Your task to perform on an android device: Open location settings Image 0: 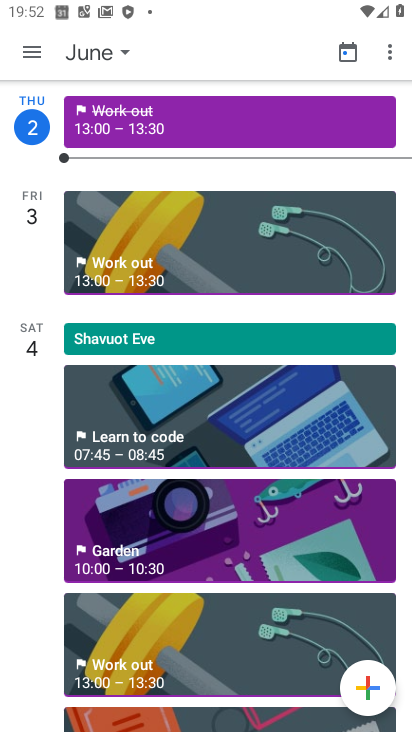
Step 0: press home button
Your task to perform on an android device: Open location settings Image 1: 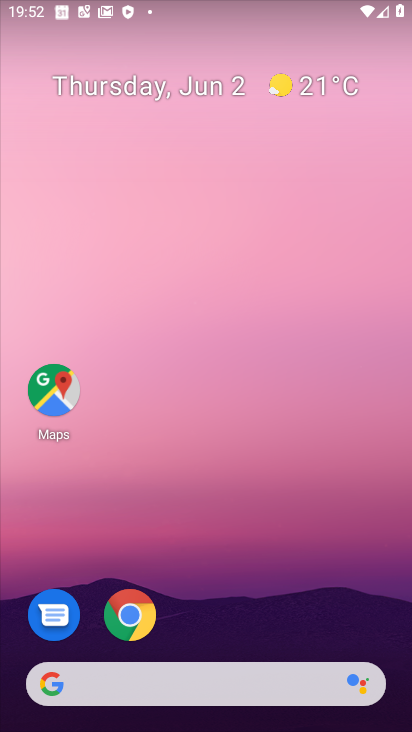
Step 1: drag from (282, 638) to (239, 134)
Your task to perform on an android device: Open location settings Image 2: 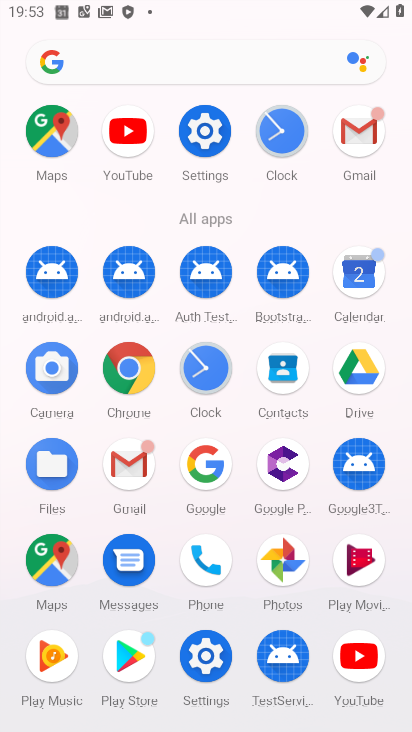
Step 2: click (209, 138)
Your task to perform on an android device: Open location settings Image 3: 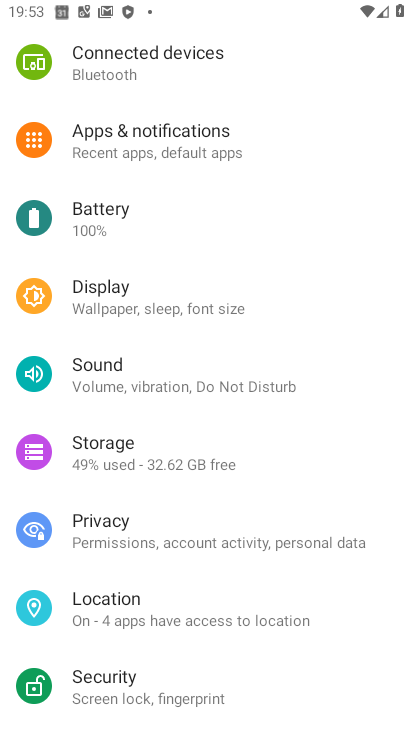
Step 3: click (183, 590)
Your task to perform on an android device: Open location settings Image 4: 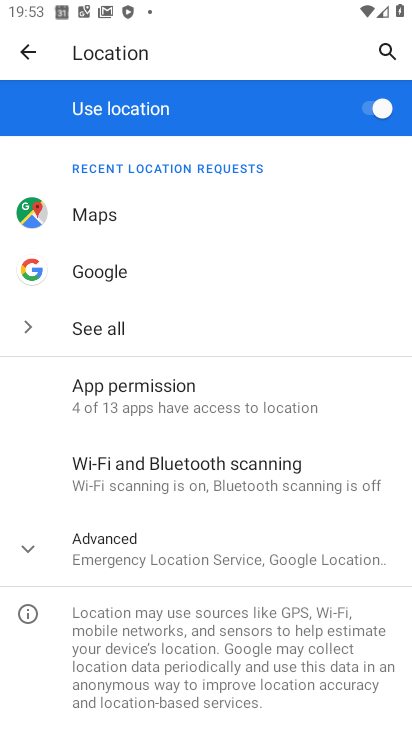
Step 4: click (35, 57)
Your task to perform on an android device: Open location settings Image 5: 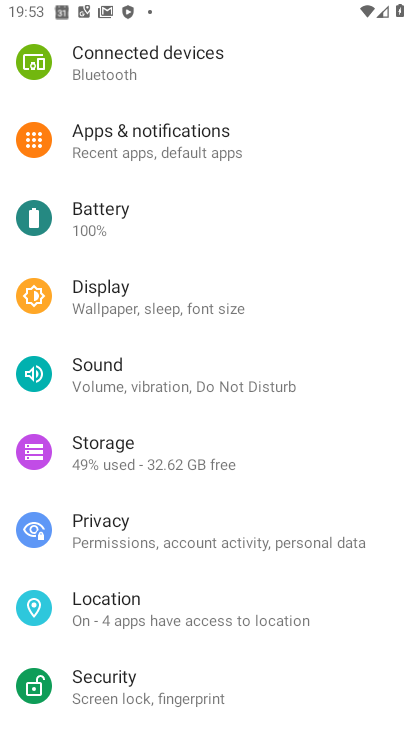
Step 5: click (157, 636)
Your task to perform on an android device: Open location settings Image 6: 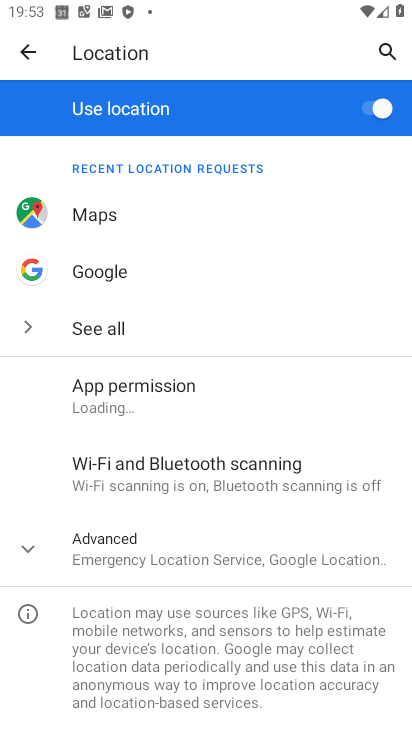
Step 6: task complete